Your task to perform on an android device: search for starred emails in the gmail app Image 0: 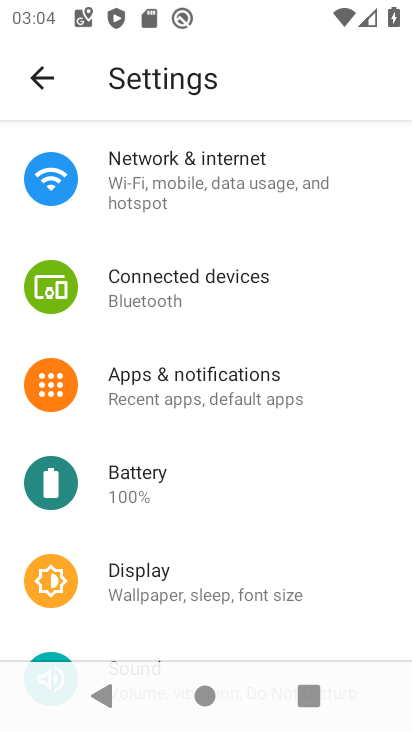
Step 0: press home button
Your task to perform on an android device: search for starred emails in the gmail app Image 1: 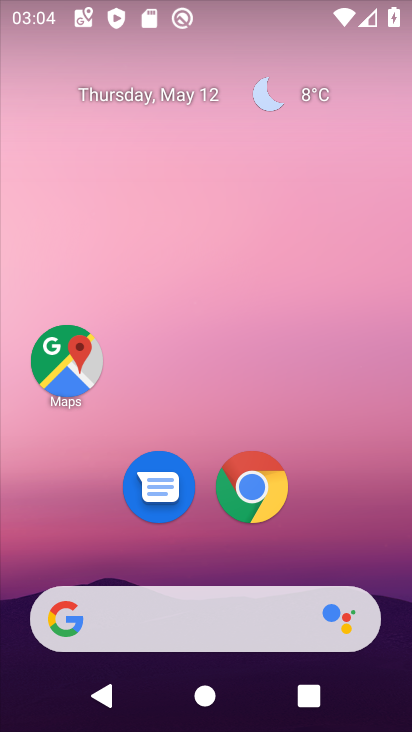
Step 1: drag from (312, 539) to (291, 107)
Your task to perform on an android device: search for starred emails in the gmail app Image 2: 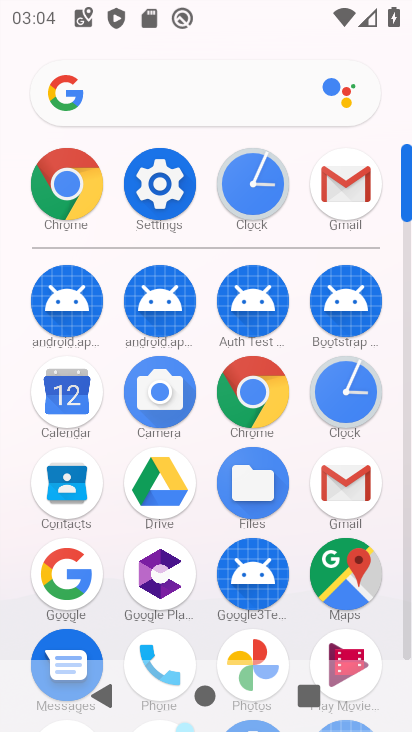
Step 2: click (356, 200)
Your task to perform on an android device: search for starred emails in the gmail app Image 3: 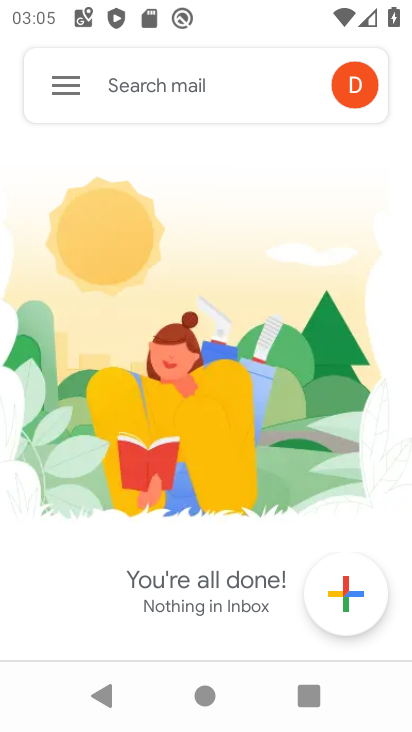
Step 3: click (74, 74)
Your task to perform on an android device: search for starred emails in the gmail app Image 4: 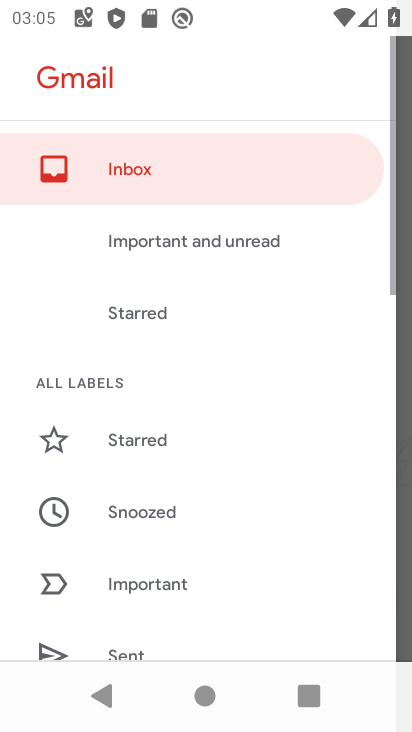
Step 4: drag from (202, 524) to (337, 96)
Your task to perform on an android device: search for starred emails in the gmail app Image 5: 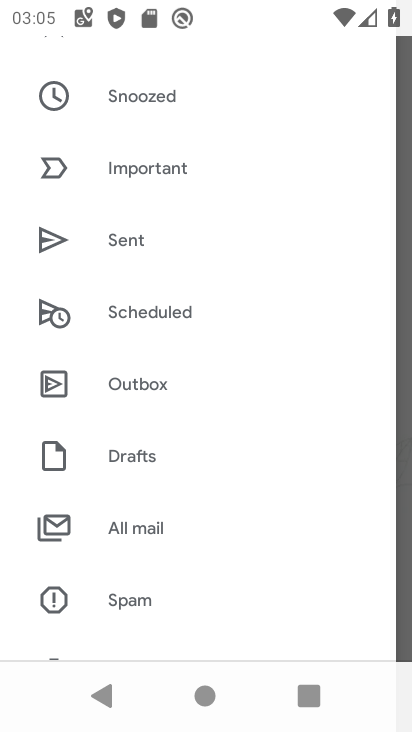
Step 5: drag from (91, 486) to (235, 126)
Your task to perform on an android device: search for starred emails in the gmail app Image 6: 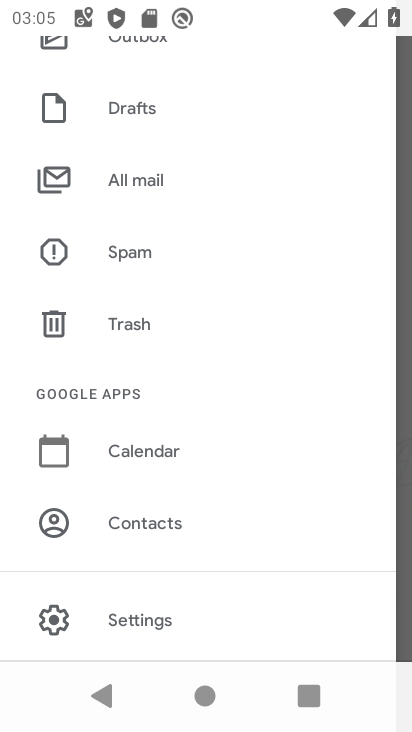
Step 6: drag from (103, 588) to (246, 248)
Your task to perform on an android device: search for starred emails in the gmail app Image 7: 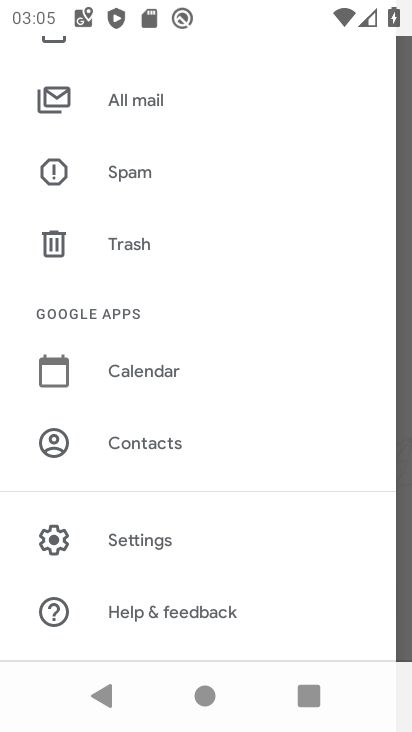
Step 7: click (160, 554)
Your task to perform on an android device: search for starred emails in the gmail app Image 8: 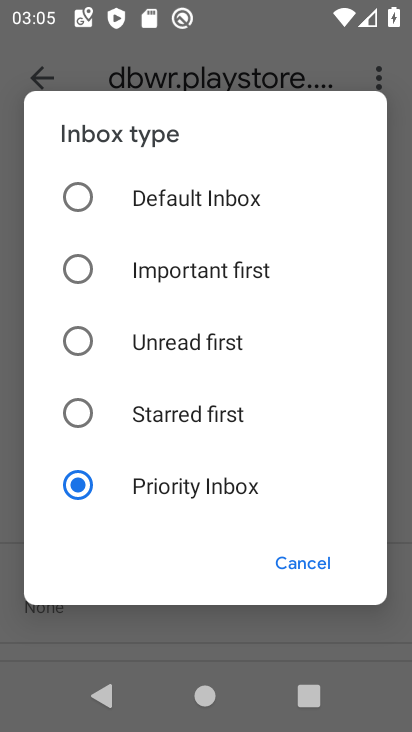
Step 8: click (310, 558)
Your task to perform on an android device: search for starred emails in the gmail app Image 9: 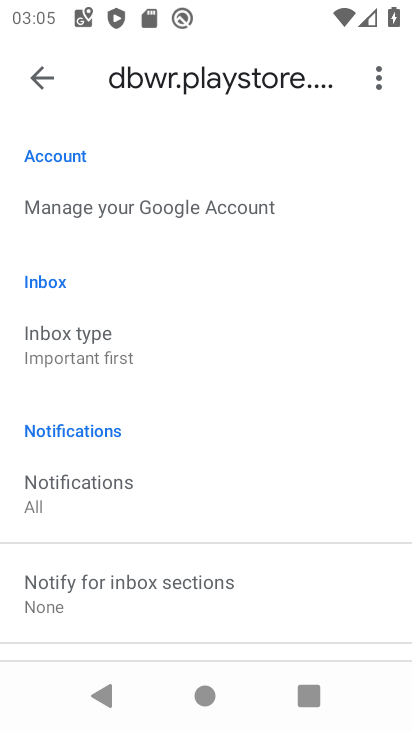
Step 9: click (41, 76)
Your task to perform on an android device: search for starred emails in the gmail app Image 10: 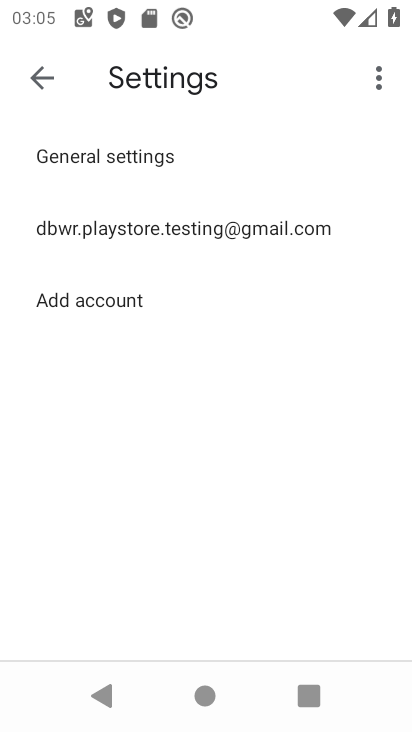
Step 10: click (56, 87)
Your task to perform on an android device: search for starred emails in the gmail app Image 11: 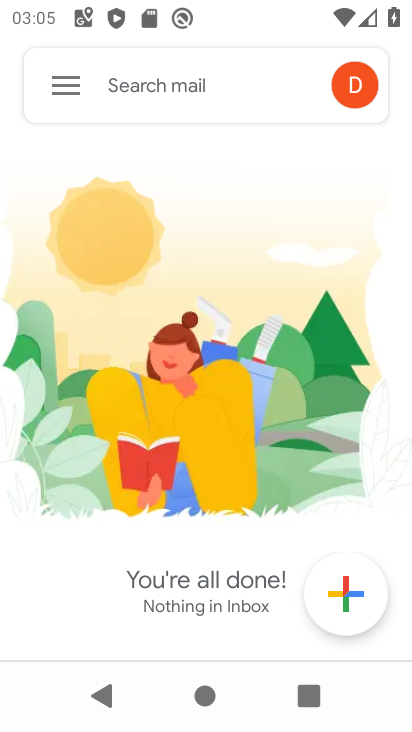
Step 11: click (57, 85)
Your task to perform on an android device: search for starred emails in the gmail app Image 12: 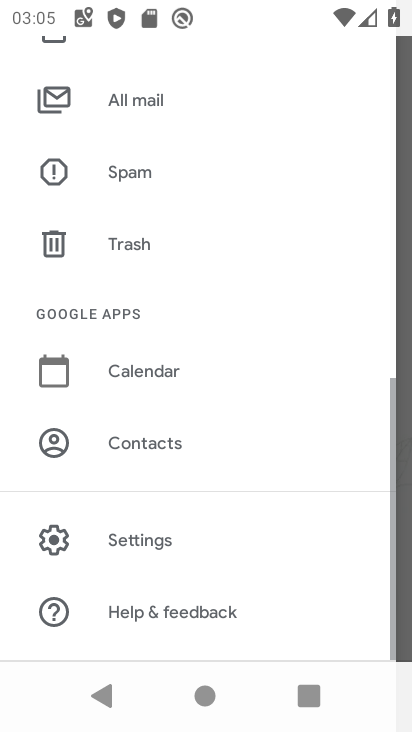
Step 12: drag from (185, 226) to (163, 457)
Your task to perform on an android device: search for starred emails in the gmail app Image 13: 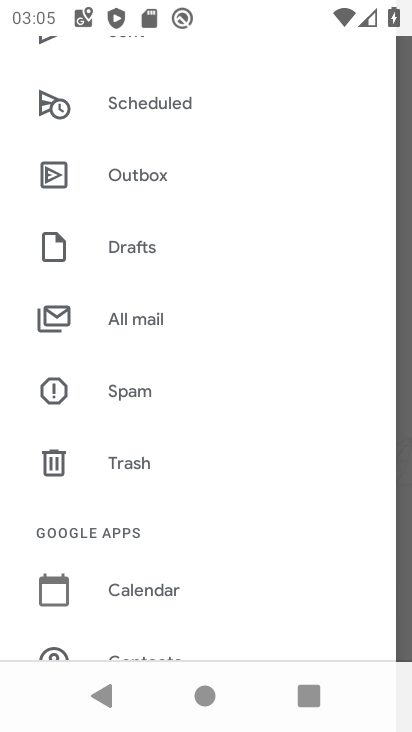
Step 13: drag from (184, 218) to (160, 379)
Your task to perform on an android device: search for starred emails in the gmail app Image 14: 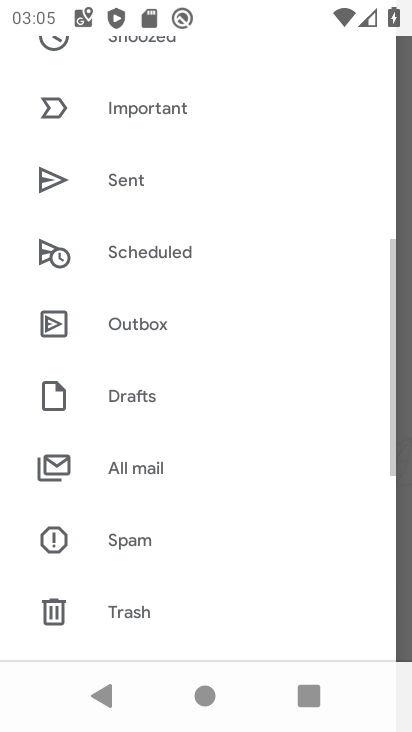
Step 14: drag from (160, 184) to (143, 452)
Your task to perform on an android device: search for starred emails in the gmail app Image 15: 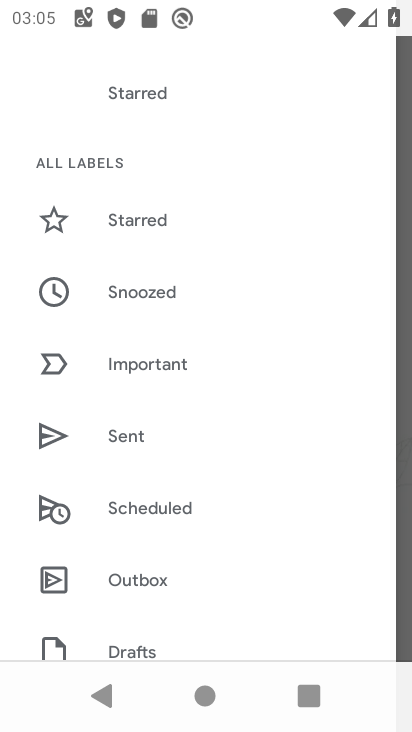
Step 15: click (141, 219)
Your task to perform on an android device: search for starred emails in the gmail app Image 16: 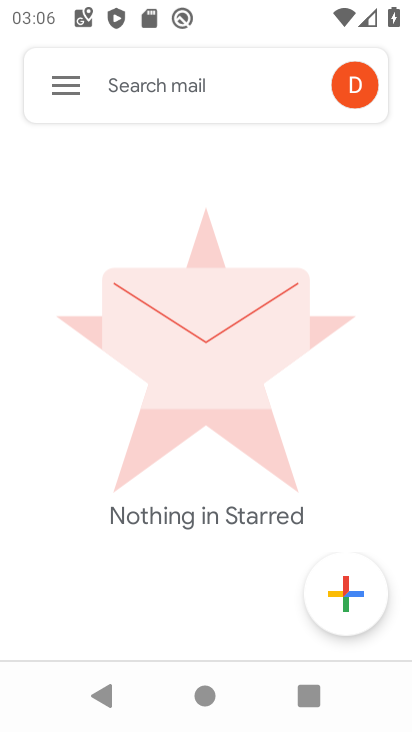
Step 16: task complete